Your task to perform on an android device: toggle translation in the chrome app Image 0: 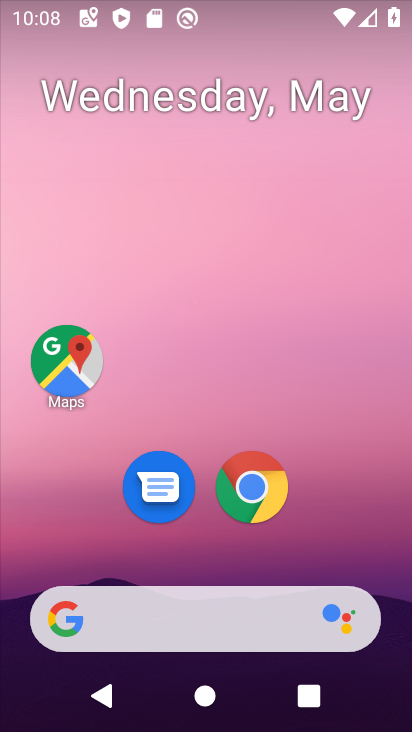
Step 0: drag from (204, 558) to (313, 13)
Your task to perform on an android device: toggle translation in the chrome app Image 1: 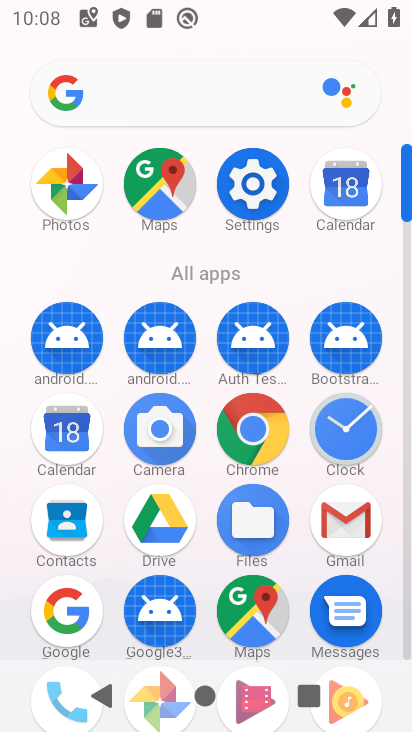
Step 1: click (264, 421)
Your task to perform on an android device: toggle translation in the chrome app Image 2: 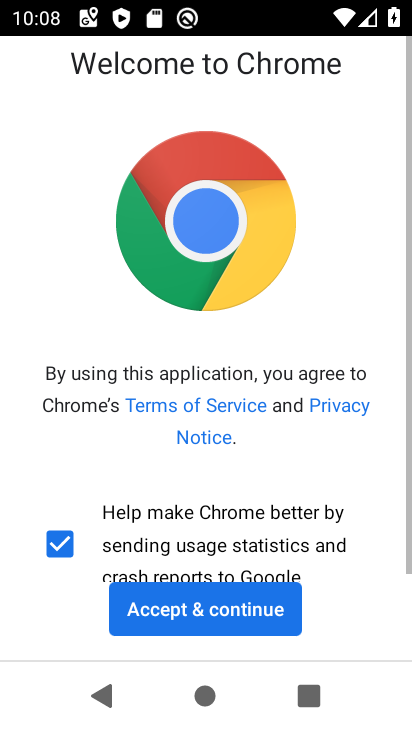
Step 2: click (154, 591)
Your task to perform on an android device: toggle translation in the chrome app Image 3: 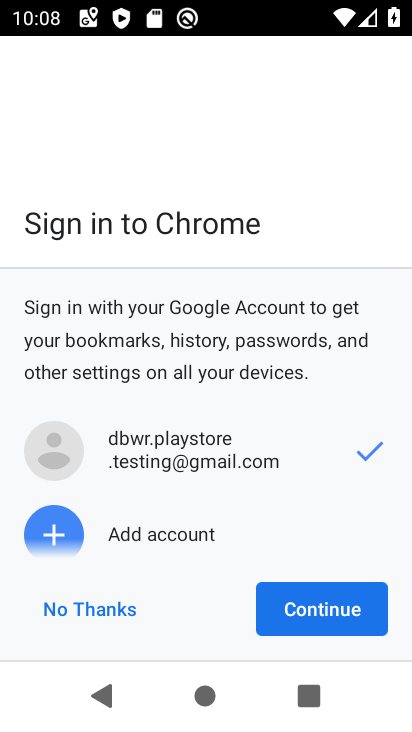
Step 3: click (313, 596)
Your task to perform on an android device: toggle translation in the chrome app Image 4: 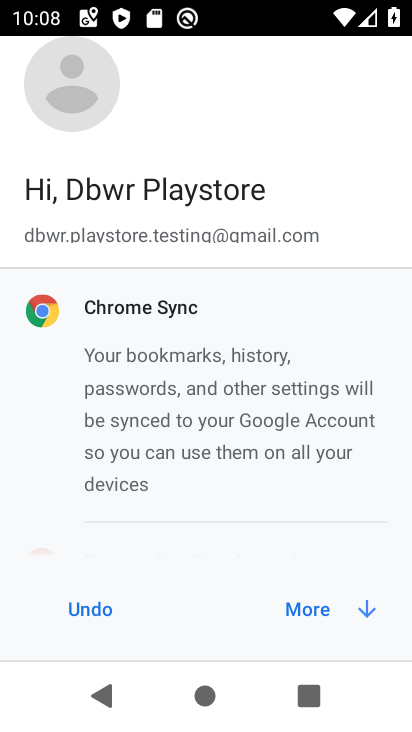
Step 4: click (330, 615)
Your task to perform on an android device: toggle translation in the chrome app Image 5: 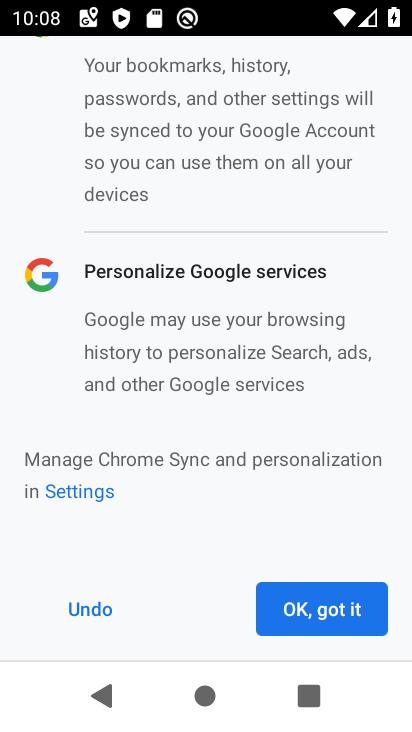
Step 5: click (310, 609)
Your task to perform on an android device: toggle translation in the chrome app Image 6: 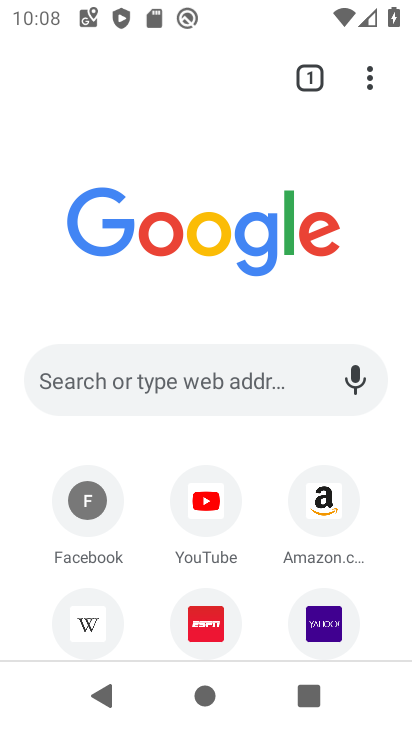
Step 6: click (358, 68)
Your task to perform on an android device: toggle translation in the chrome app Image 7: 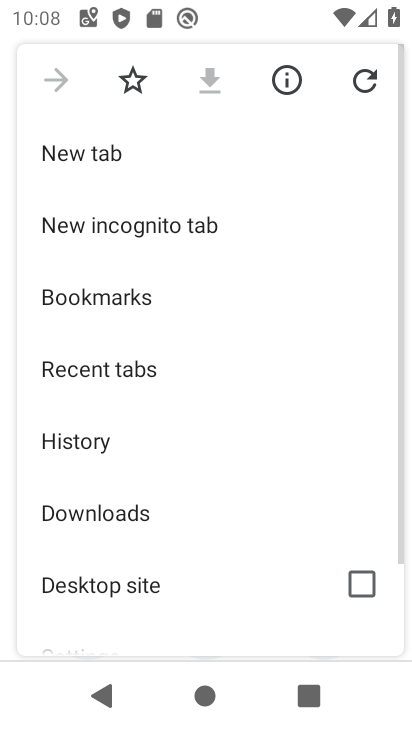
Step 7: drag from (99, 563) to (106, 138)
Your task to perform on an android device: toggle translation in the chrome app Image 8: 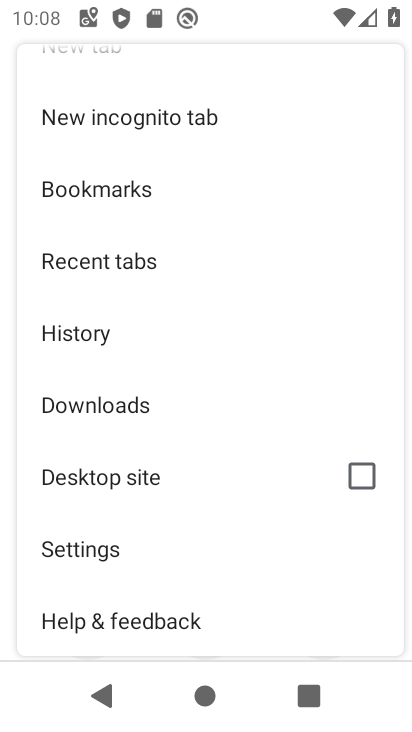
Step 8: click (65, 566)
Your task to perform on an android device: toggle translation in the chrome app Image 9: 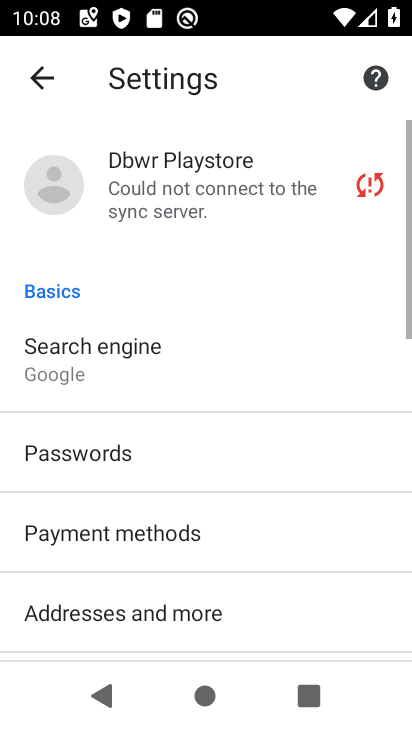
Step 9: drag from (123, 547) to (90, 55)
Your task to perform on an android device: toggle translation in the chrome app Image 10: 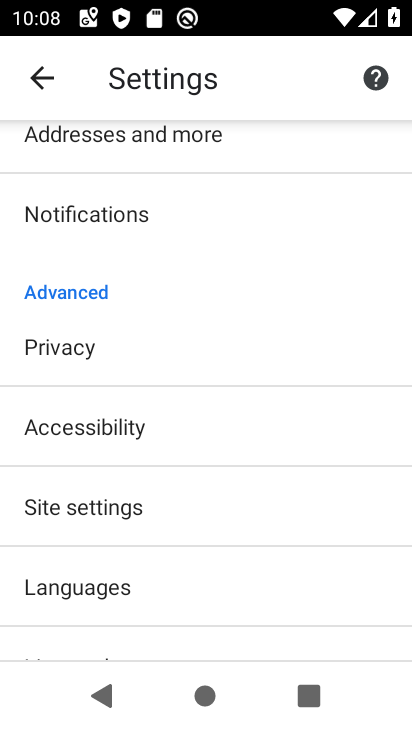
Step 10: click (94, 570)
Your task to perform on an android device: toggle translation in the chrome app Image 11: 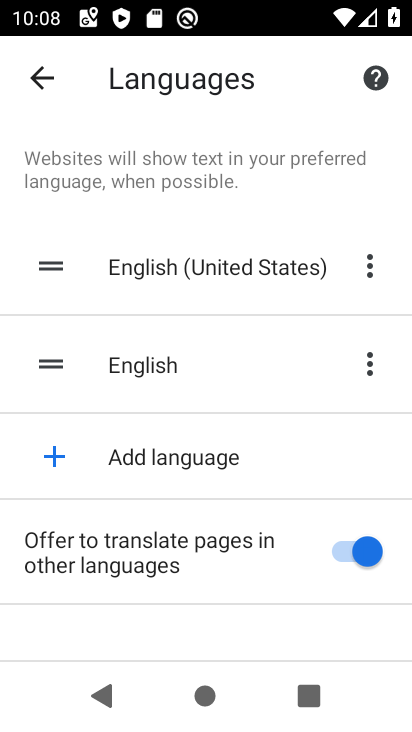
Step 11: click (335, 549)
Your task to perform on an android device: toggle translation in the chrome app Image 12: 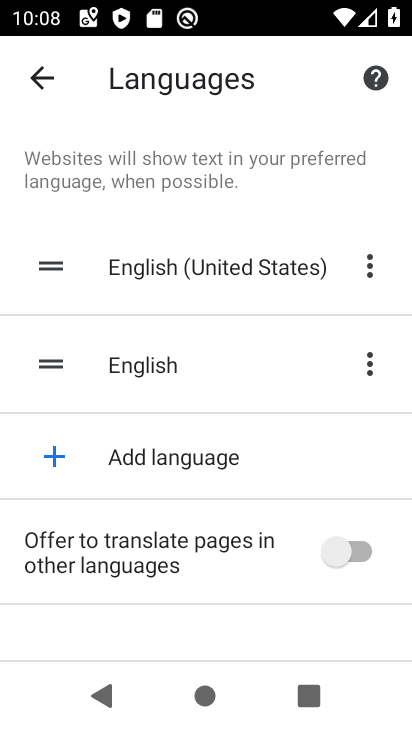
Step 12: task complete